Your task to perform on an android device: clear history in the chrome app Image 0: 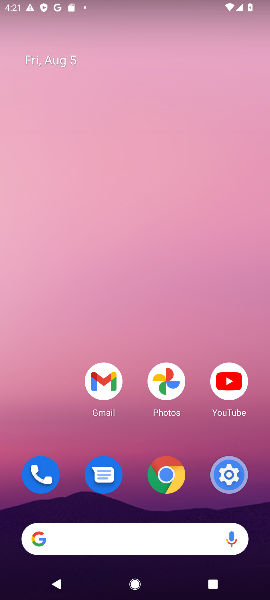
Step 0: click (159, 488)
Your task to perform on an android device: clear history in the chrome app Image 1: 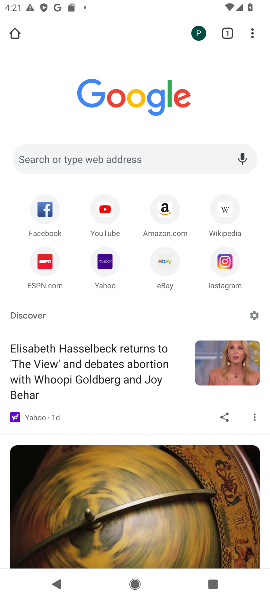
Step 1: click (249, 32)
Your task to perform on an android device: clear history in the chrome app Image 2: 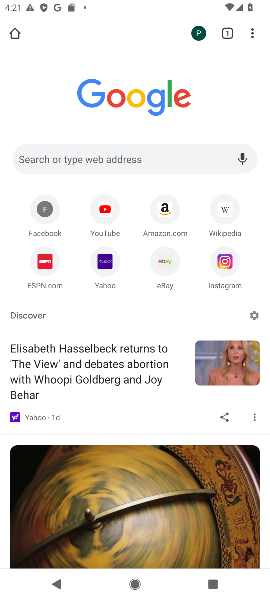
Step 2: click (249, 29)
Your task to perform on an android device: clear history in the chrome app Image 3: 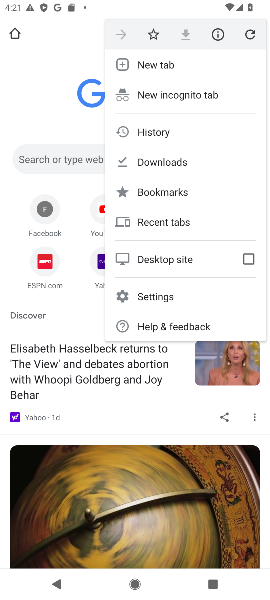
Step 3: click (165, 125)
Your task to perform on an android device: clear history in the chrome app Image 4: 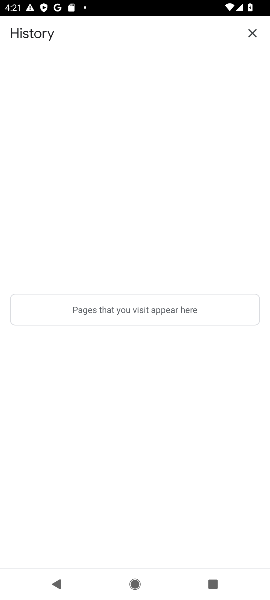
Step 4: task complete